Your task to perform on an android device: Search for sushi restaurants on Maps Image 0: 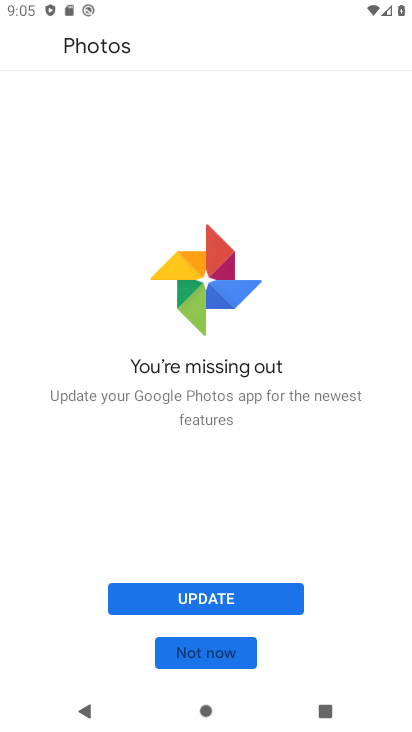
Step 0: press home button
Your task to perform on an android device: Search for sushi restaurants on Maps Image 1: 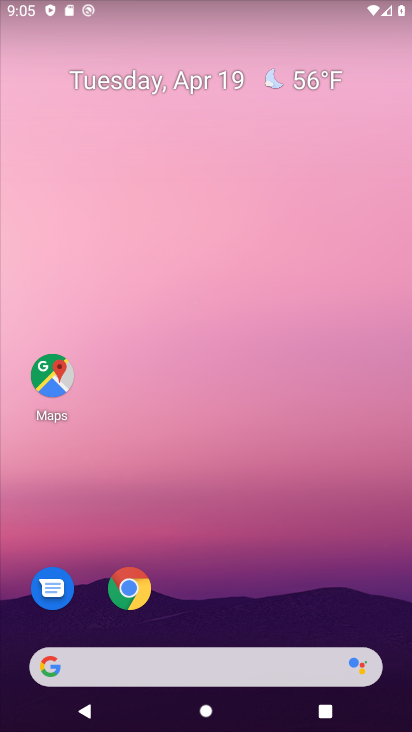
Step 1: click (54, 380)
Your task to perform on an android device: Search for sushi restaurants on Maps Image 2: 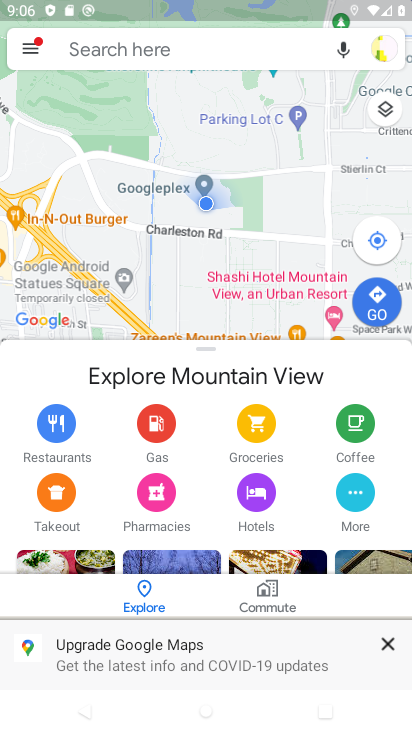
Step 2: click (225, 50)
Your task to perform on an android device: Search for sushi restaurants on Maps Image 3: 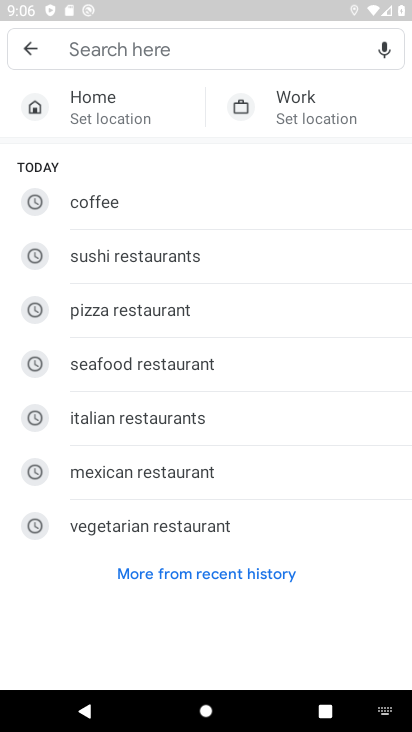
Step 3: type "sushi restaurants"
Your task to perform on an android device: Search for sushi restaurants on Maps Image 4: 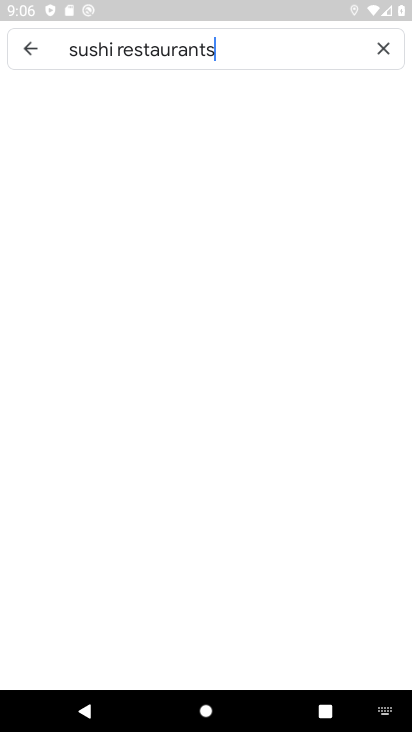
Step 4: type ""
Your task to perform on an android device: Search for sushi restaurants on Maps Image 5: 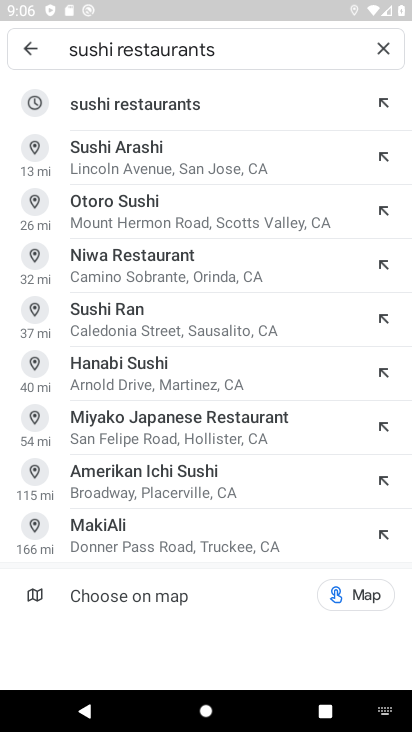
Step 5: click (174, 106)
Your task to perform on an android device: Search for sushi restaurants on Maps Image 6: 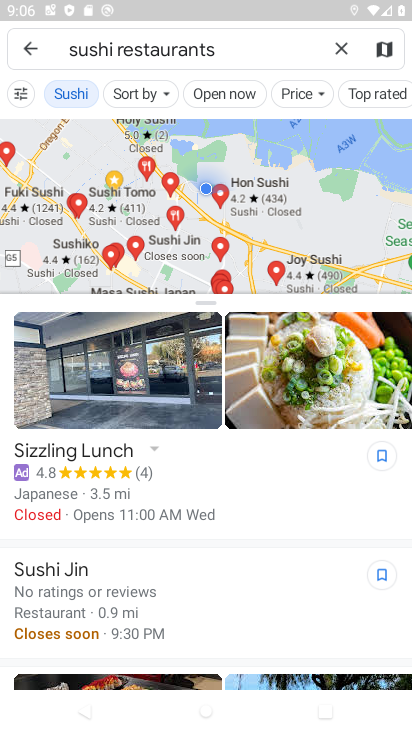
Step 6: task complete